Your task to perform on an android device: Search for sushi restaurants on Maps Image 0: 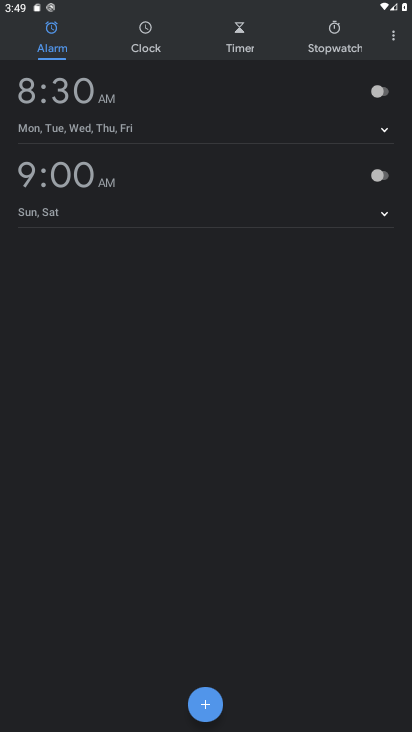
Step 0: press home button
Your task to perform on an android device: Search for sushi restaurants on Maps Image 1: 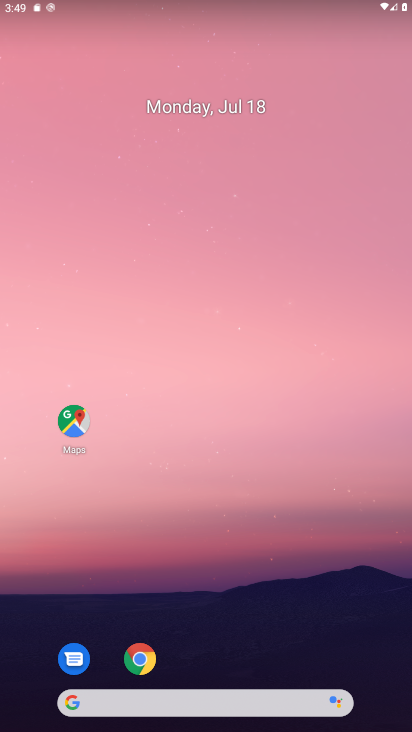
Step 1: drag from (224, 551) to (236, 75)
Your task to perform on an android device: Search for sushi restaurants on Maps Image 2: 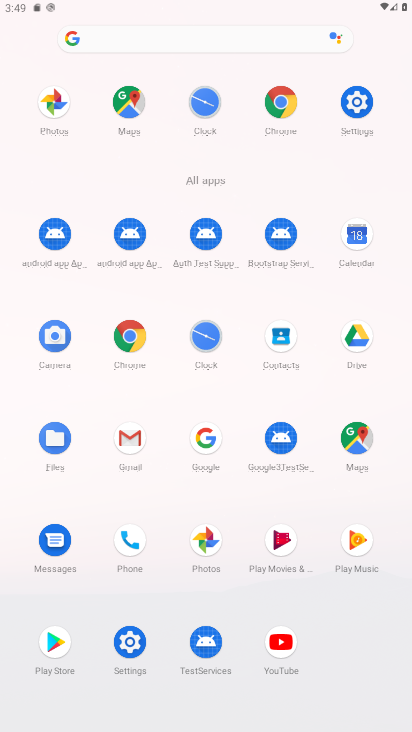
Step 2: click (359, 448)
Your task to perform on an android device: Search for sushi restaurants on Maps Image 3: 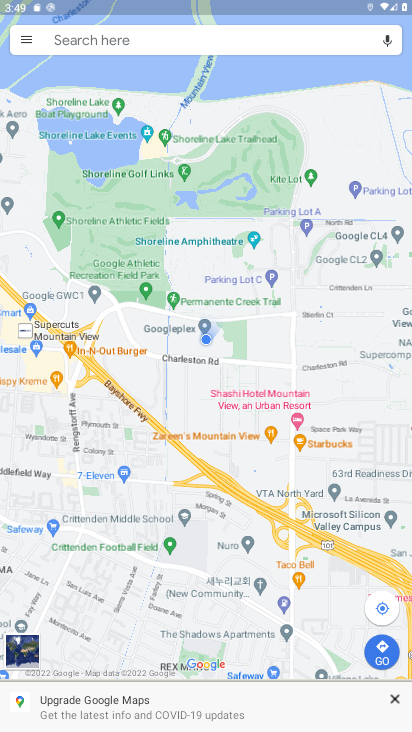
Step 3: click (152, 46)
Your task to perform on an android device: Search for sushi restaurants on Maps Image 4: 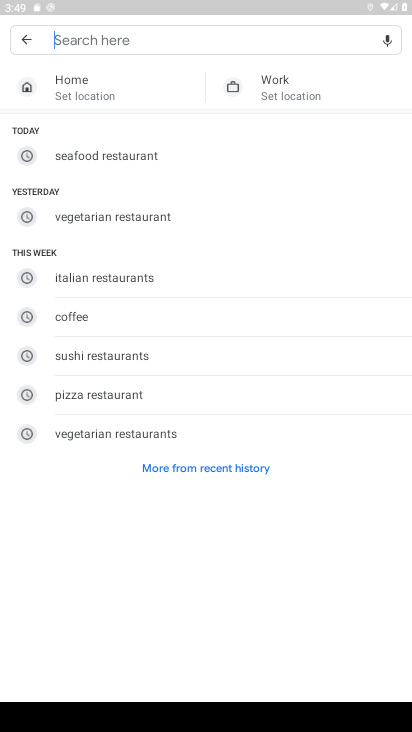
Step 4: click (139, 353)
Your task to perform on an android device: Search for sushi restaurants on Maps Image 5: 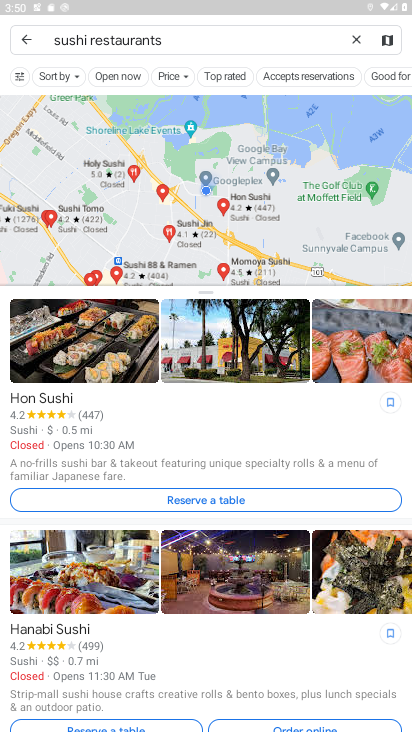
Step 5: task complete